Your task to perform on an android device: toggle airplane mode Image 0: 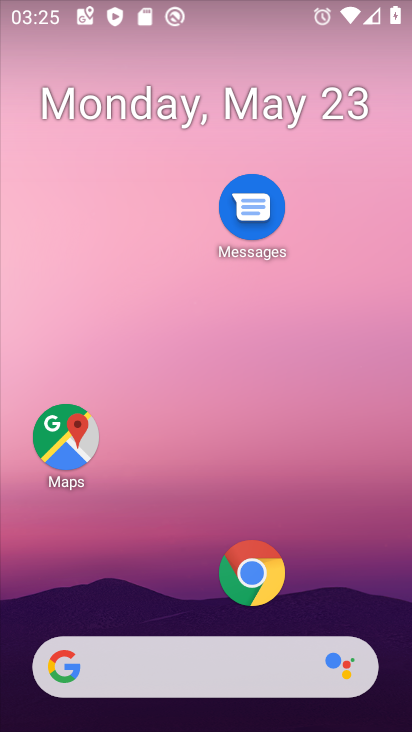
Step 0: drag from (341, 627) to (326, 83)
Your task to perform on an android device: toggle airplane mode Image 1: 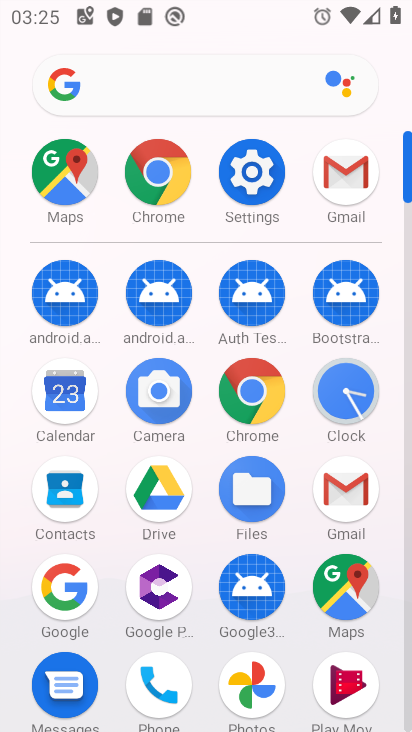
Step 1: click (249, 165)
Your task to perform on an android device: toggle airplane mode Image 2: 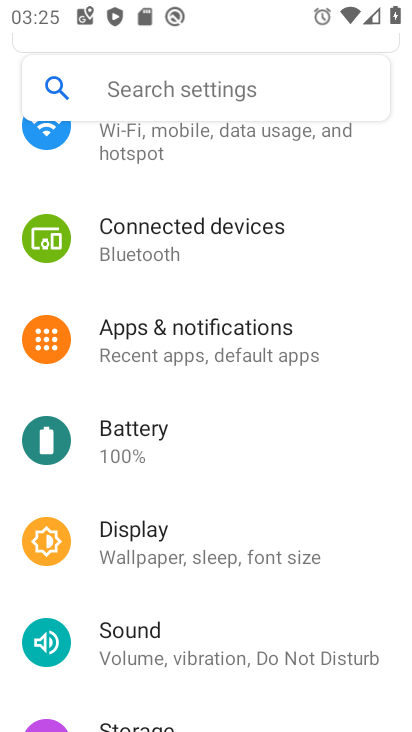
Step 2: click (225, 148)
Your task to perform on an android device: toggle airplane mode Image 3: 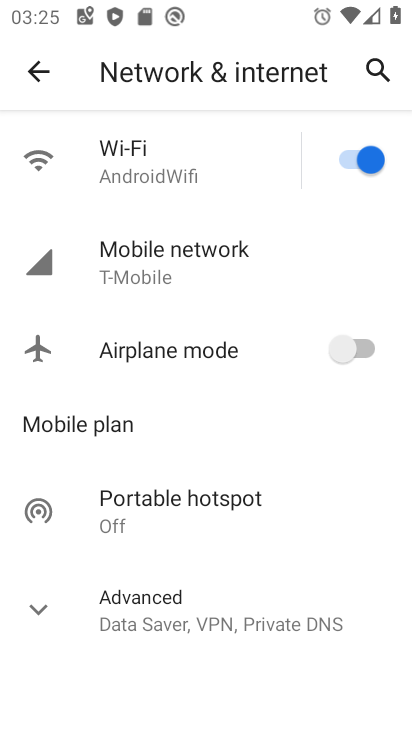
Step 3: click (368, 355)
Your task to perform on an android device: toggle airplane mode Image 4: 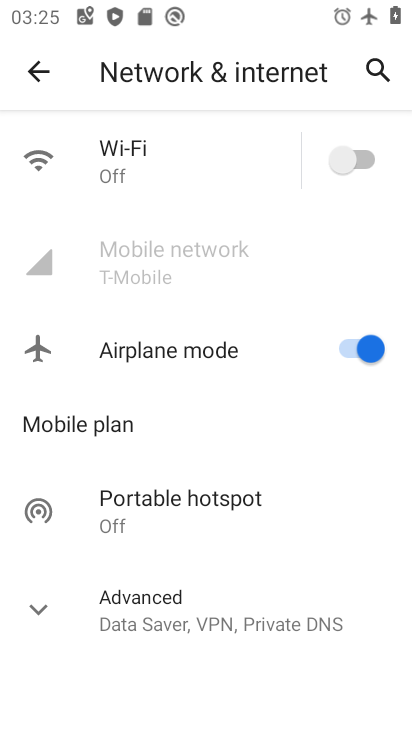
Step 4: task complete